Your task to perform on an android device: change timer sound Image 0: 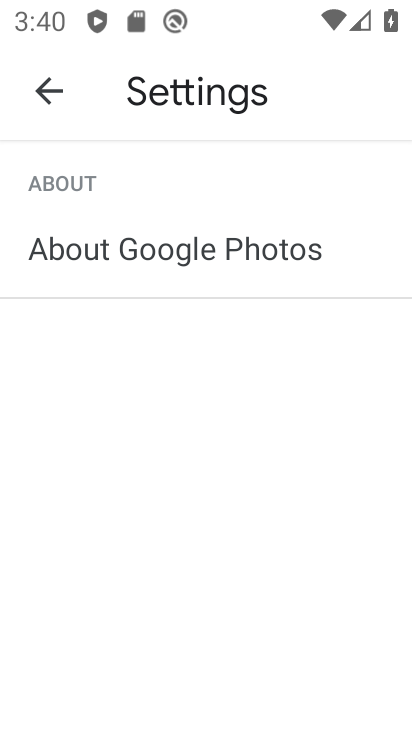
Step 0: press home button
Your task to perform on an android device: change timer sound Image 1: 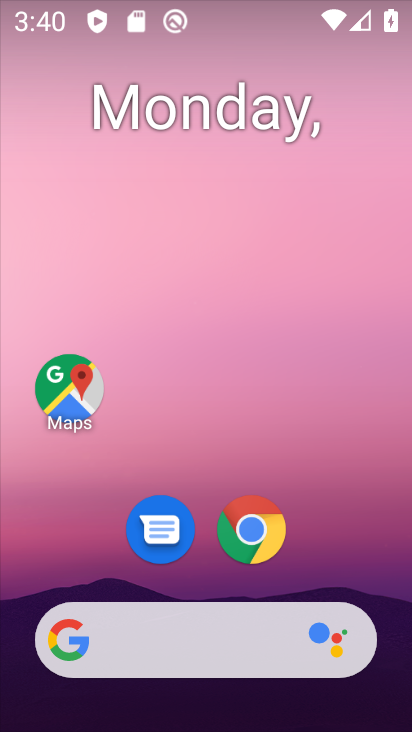
Step 1: drag from (266, 579) to (331, 6)
Your task to perform on an android device: change timer sound Image 2: 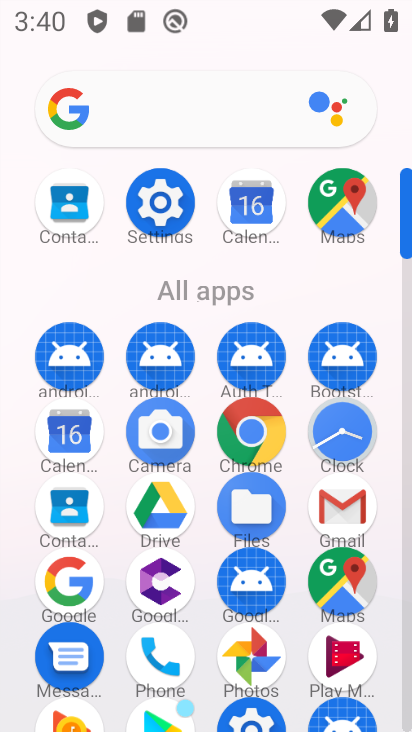
Step 2: click (344, 437)
Your task to perform on an android device: change timer sound Image 3: 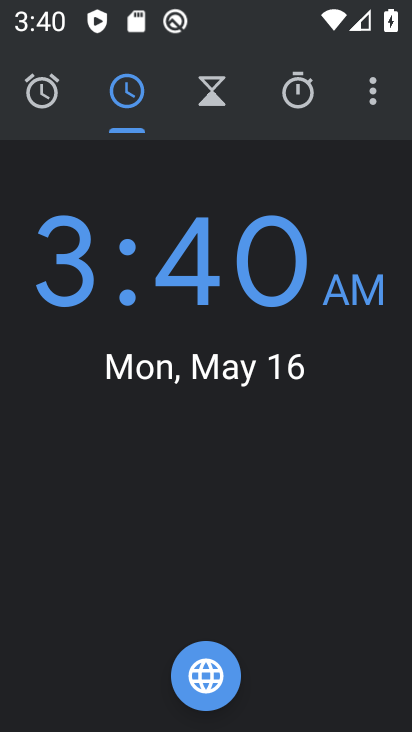
Step 3: click (378, 109)
Your task to perform on an android device: change timer sound Image 4: 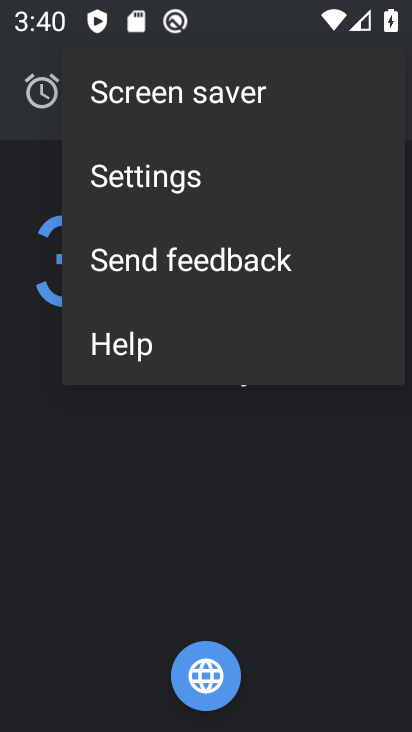
Step 4: click (154, 178)
Your task to perform on an android device: change timer sound Image 5: 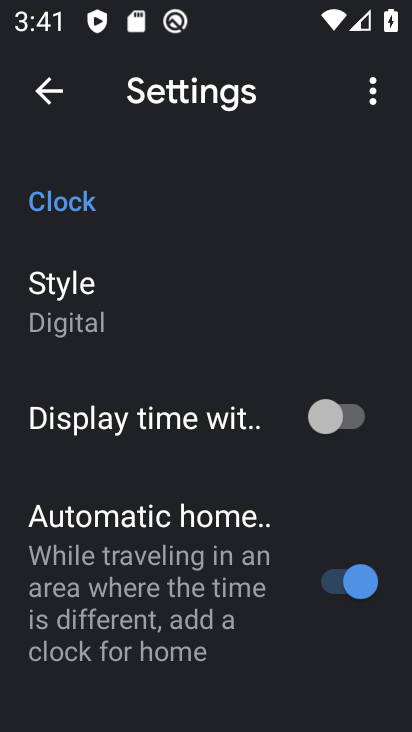
Step 5: drag from (166, 472) to (246, 125)
Your task to perform on an android device: change timer sound Image 6: 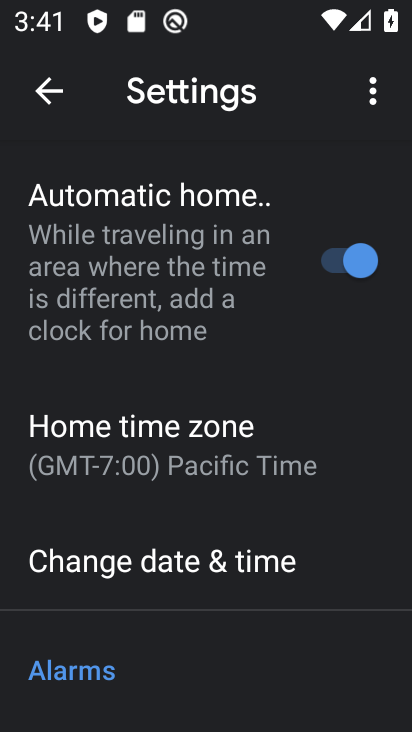
Step 6: drag from (254, 438) to (307, 160)
Your task to perform on an android device: change timer sound Image 7: 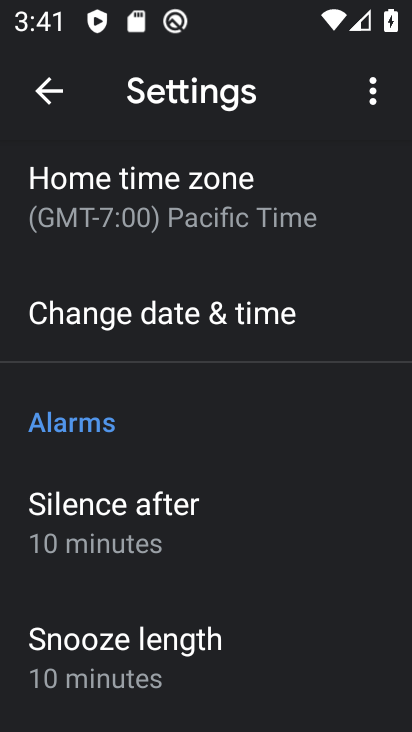
Step 7: drag from (254, 484) to (298, 205)
Your task to perform on an android device: change timer sound Image 8: 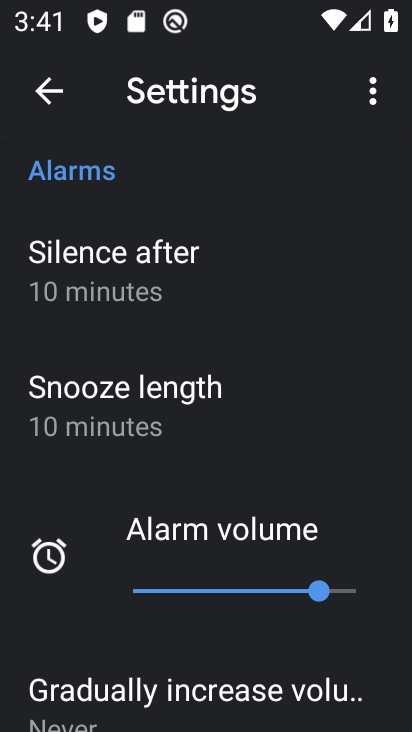
Step 8: drag from (184, 559) to (236, 350)
Your task to perform on an android device: change timer sound Image 9: 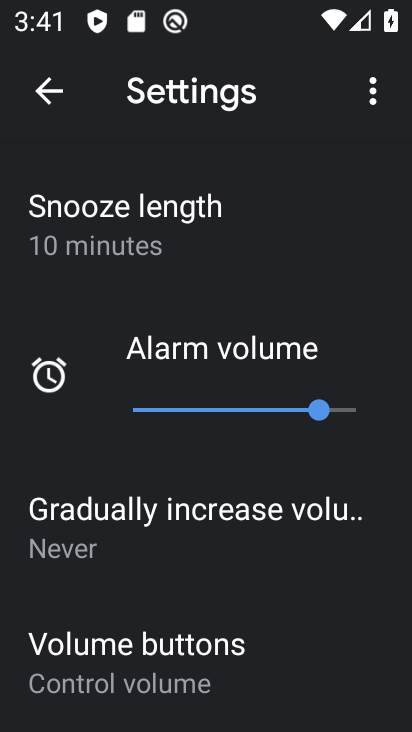
Step 9: drag from (208, 579) to (273, 314)
Your task to perform on an android device: change timer sound Image 10: 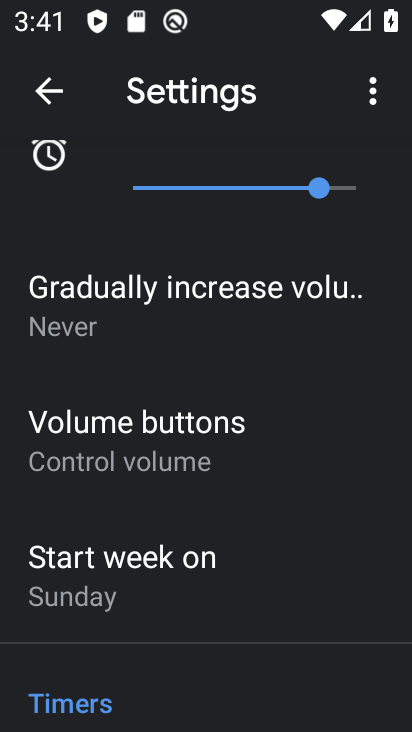
Step 10: drag from (195, 534) to (229, 387)
Your task to perform on an android device: change timer sound Image 11: 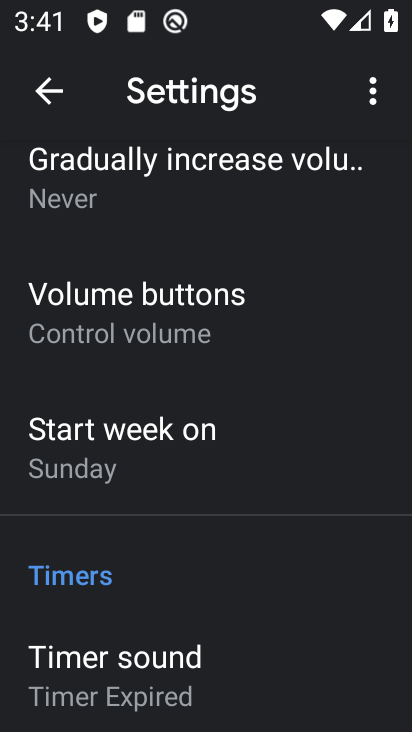
Step 11: click (163, 686)
Your task to perform on an android device: change timer sound Image 12: 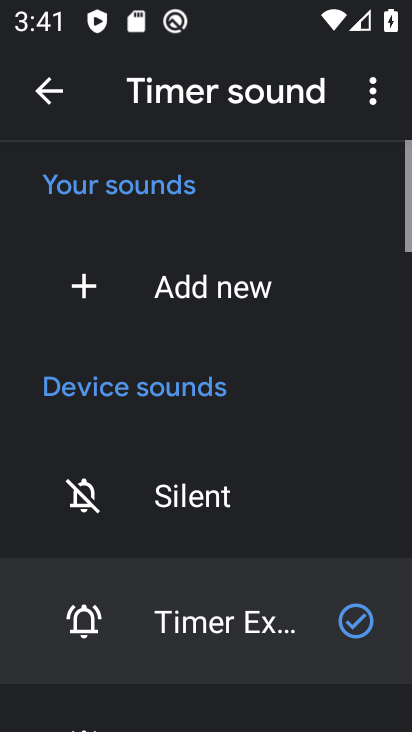
Step 12: drag from (182, 611) to (229, 308)
Your task to perform on an android device: change timer sound Image 13: 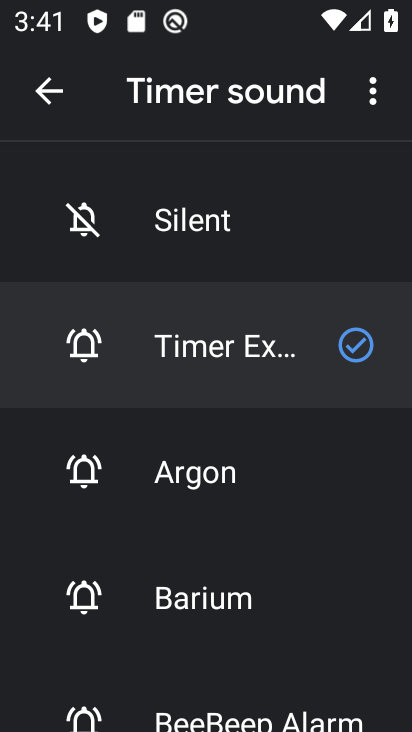
Step 13: click (179, 592)
Your task to perform on an android device: change timer sound Image 14: 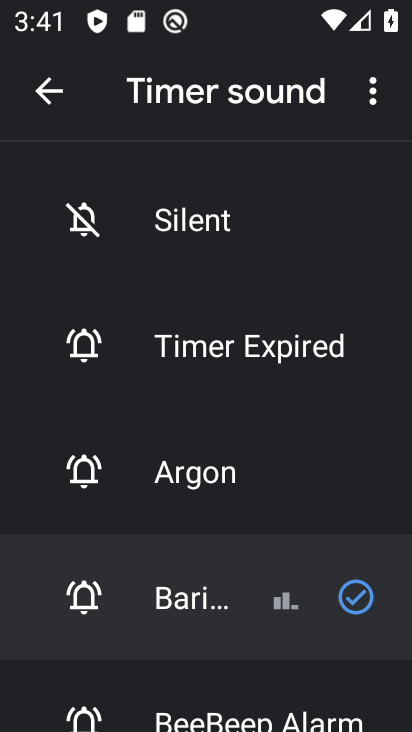
Step 14: task complete